Your task to perform on an android device: Do I have any events tomorrow? Image 0: 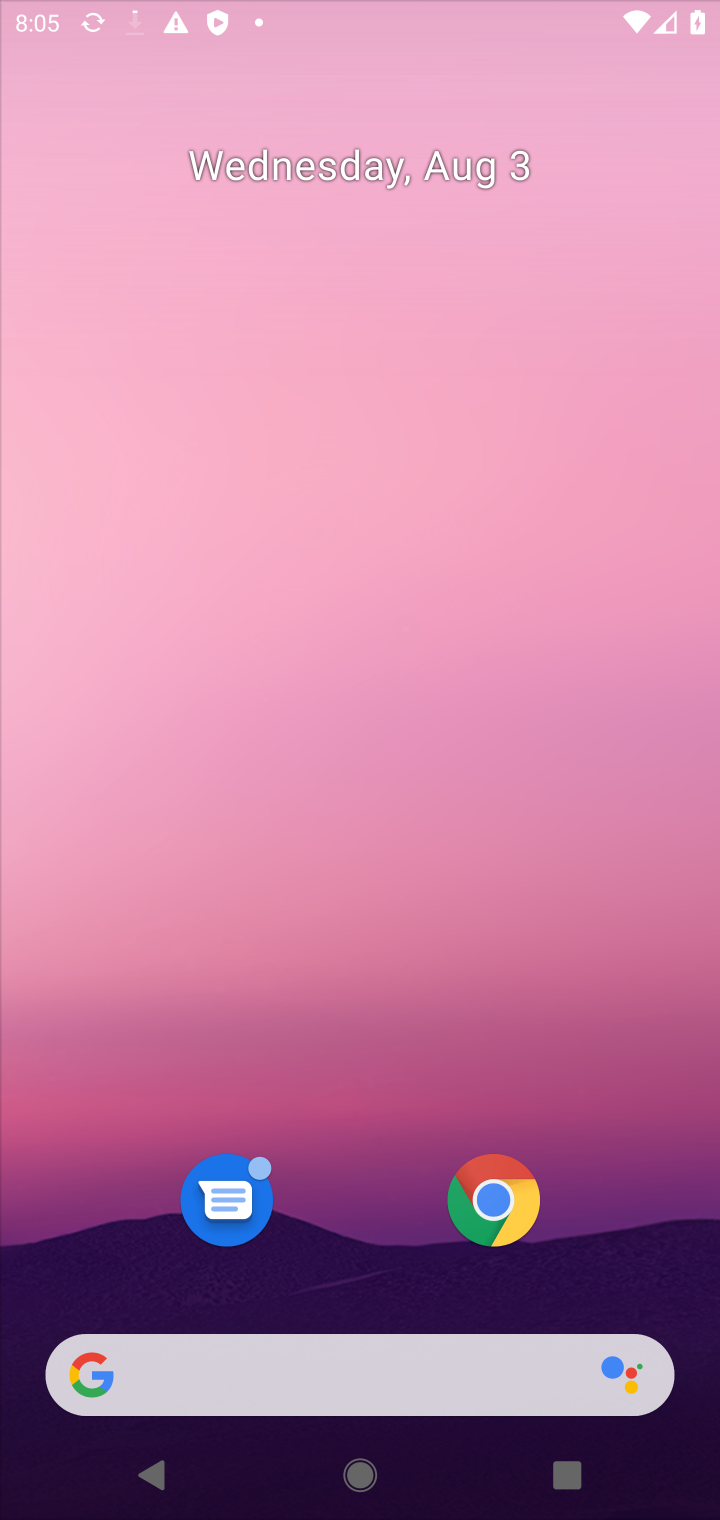
Step 0: click (536, 282)
Your task to perform on an android device: Do I have any events tomorrow? Image 1: 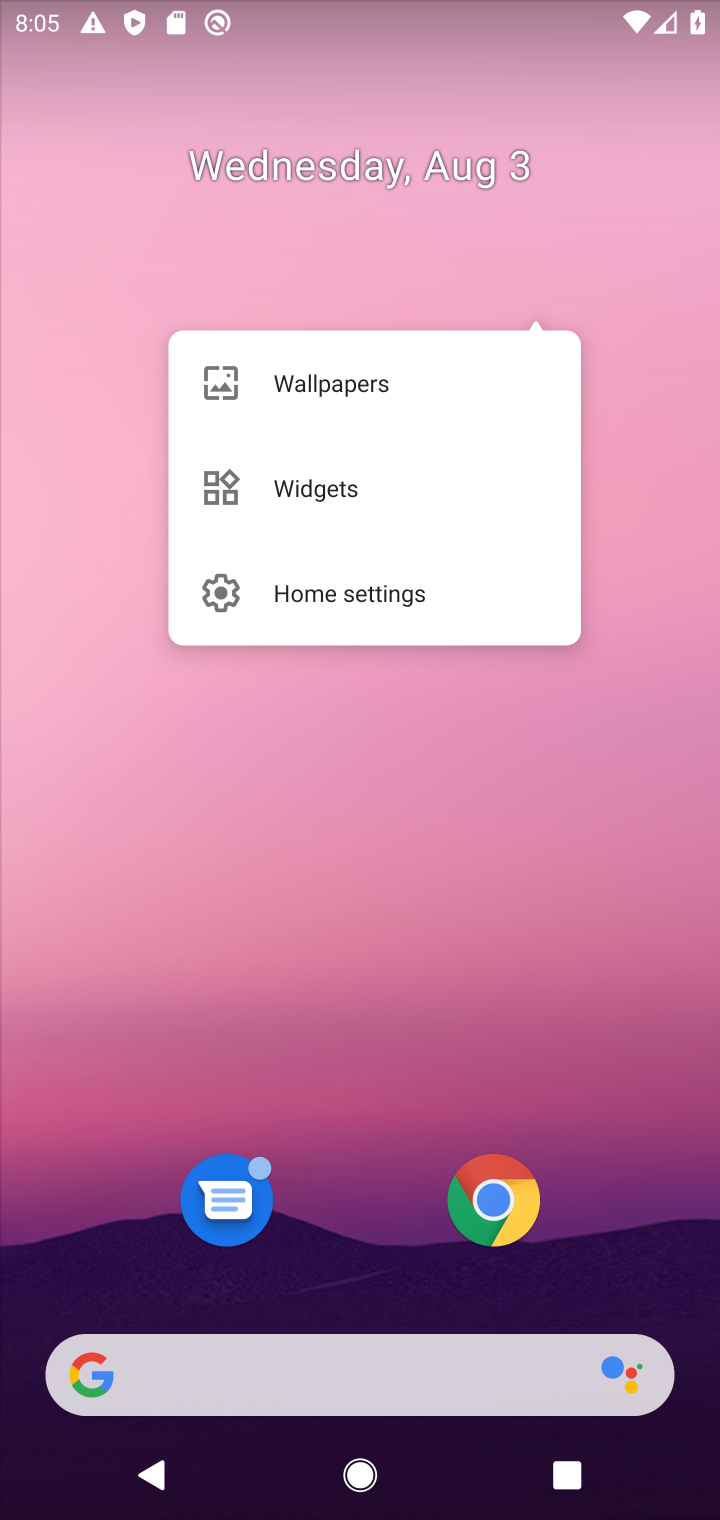
Step 1: drag from (637, 1225) to (594, 267)
Your task to perform on an android device: Do I have any events tomorrow? Image 2: 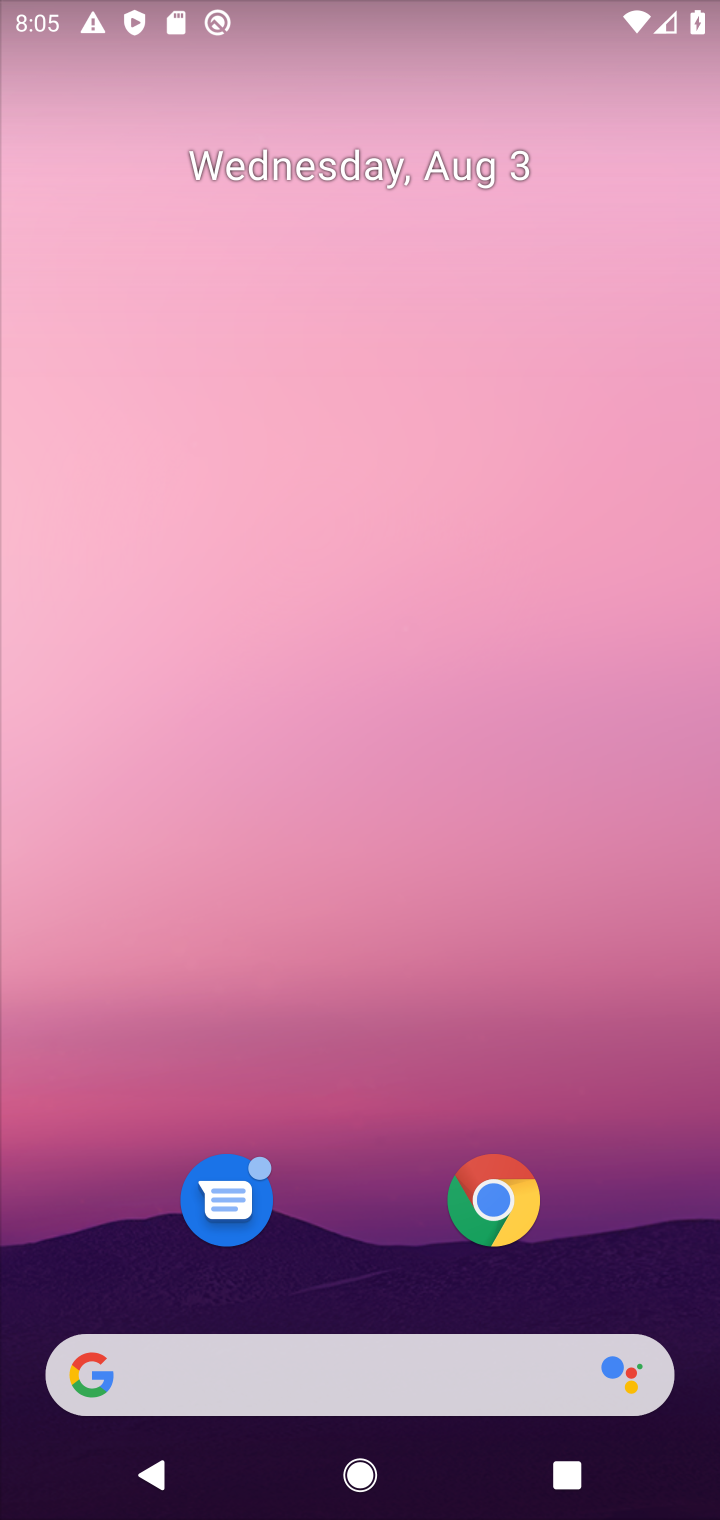
Step 2: drag from (627, 1154) to (518, 213)
Your task to perform on an android device: Do I have any events tomorrow? Image 3: 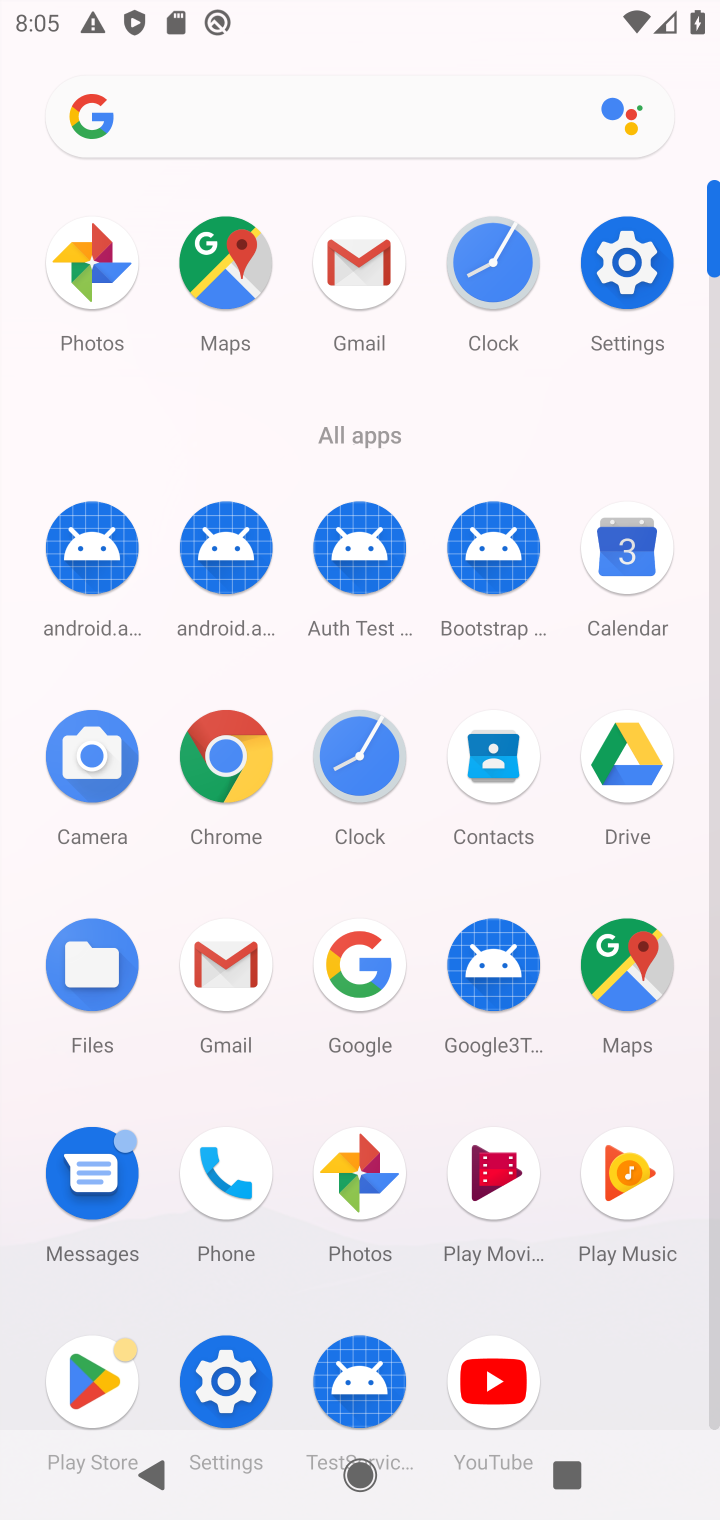
Step 3: click (625, 553)
Your task to perform on an android device: Do I have any events tomorrow? Image 4: 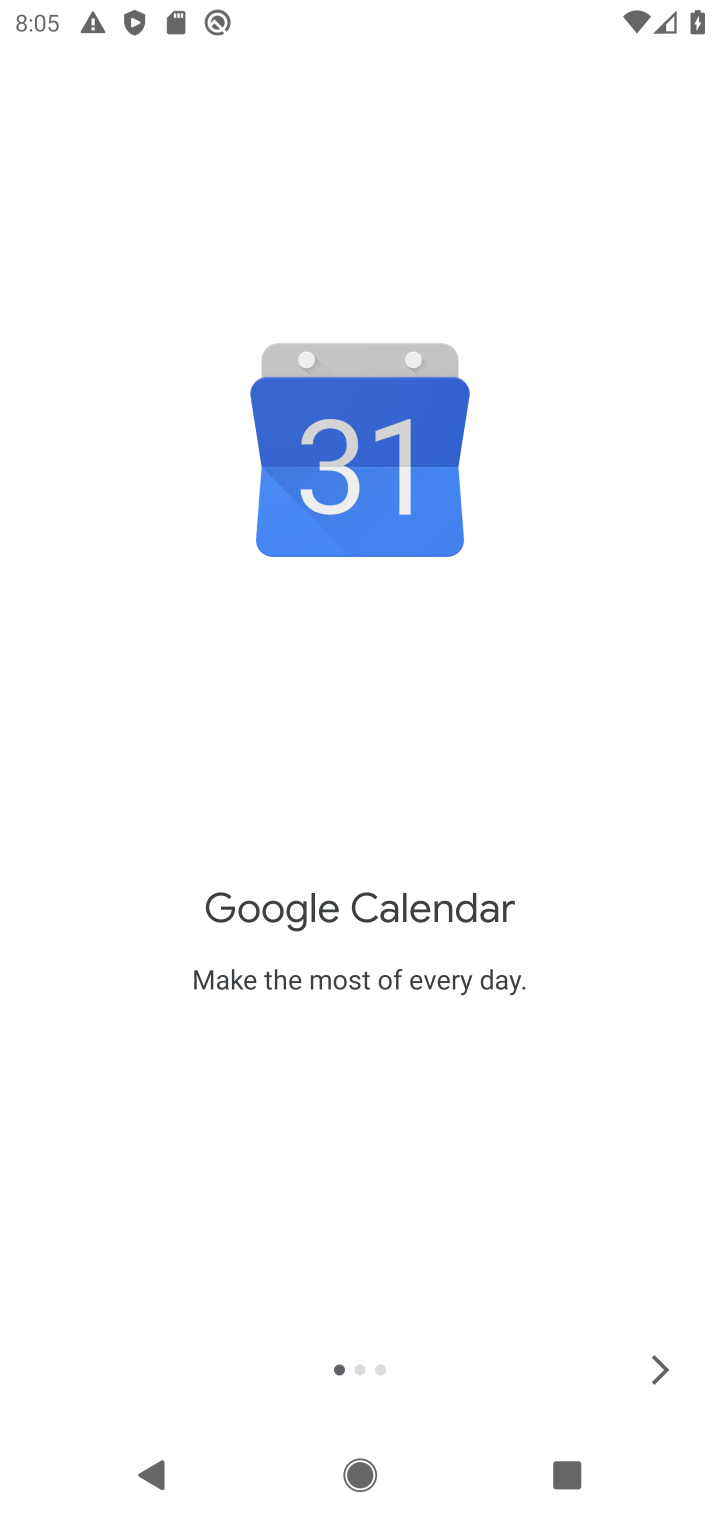
Step 4: click (657, 1363)
Your task to perform on an android device: Do I have any events tomorrow? Image 5: 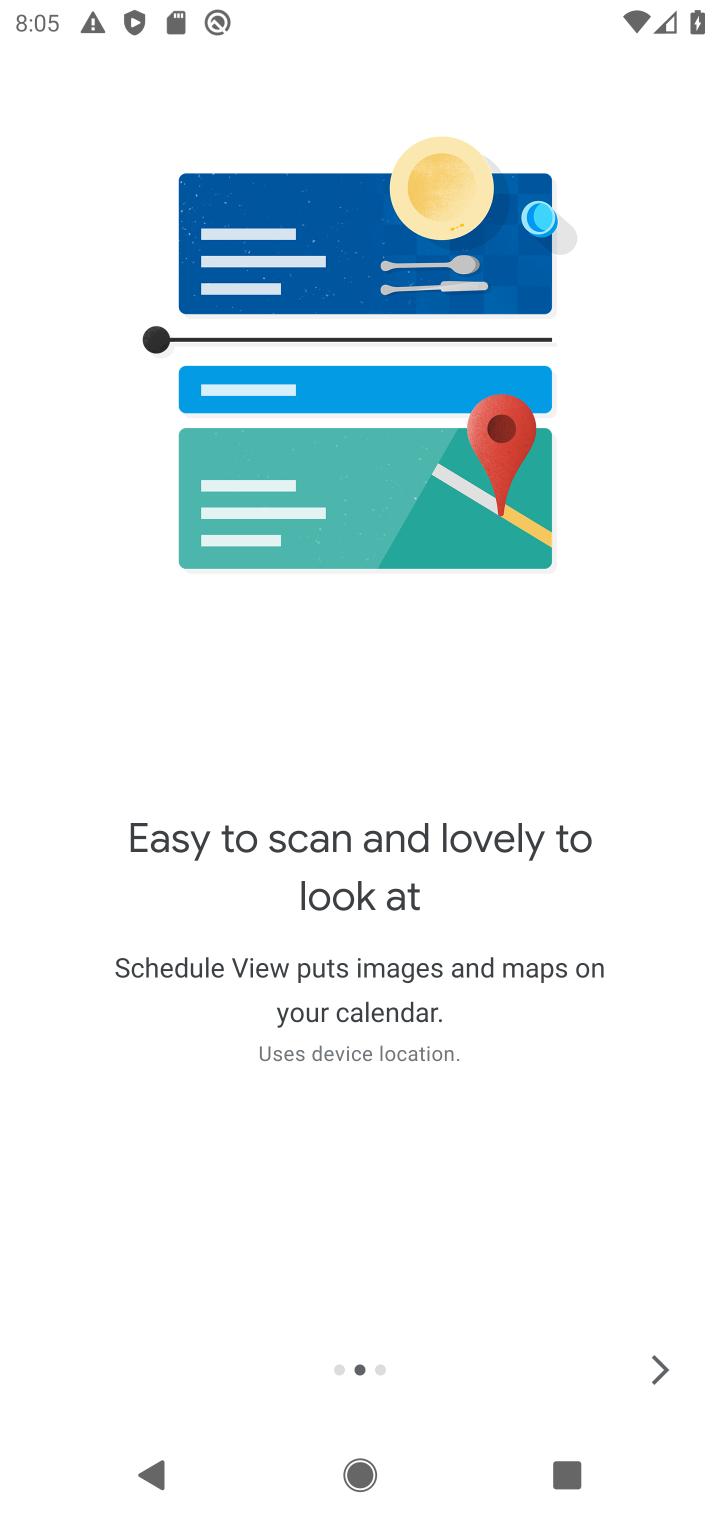
Step 5: click (657, 1363)
Your task to perform on an android device: Do I have any events tomorrow? Image 6: 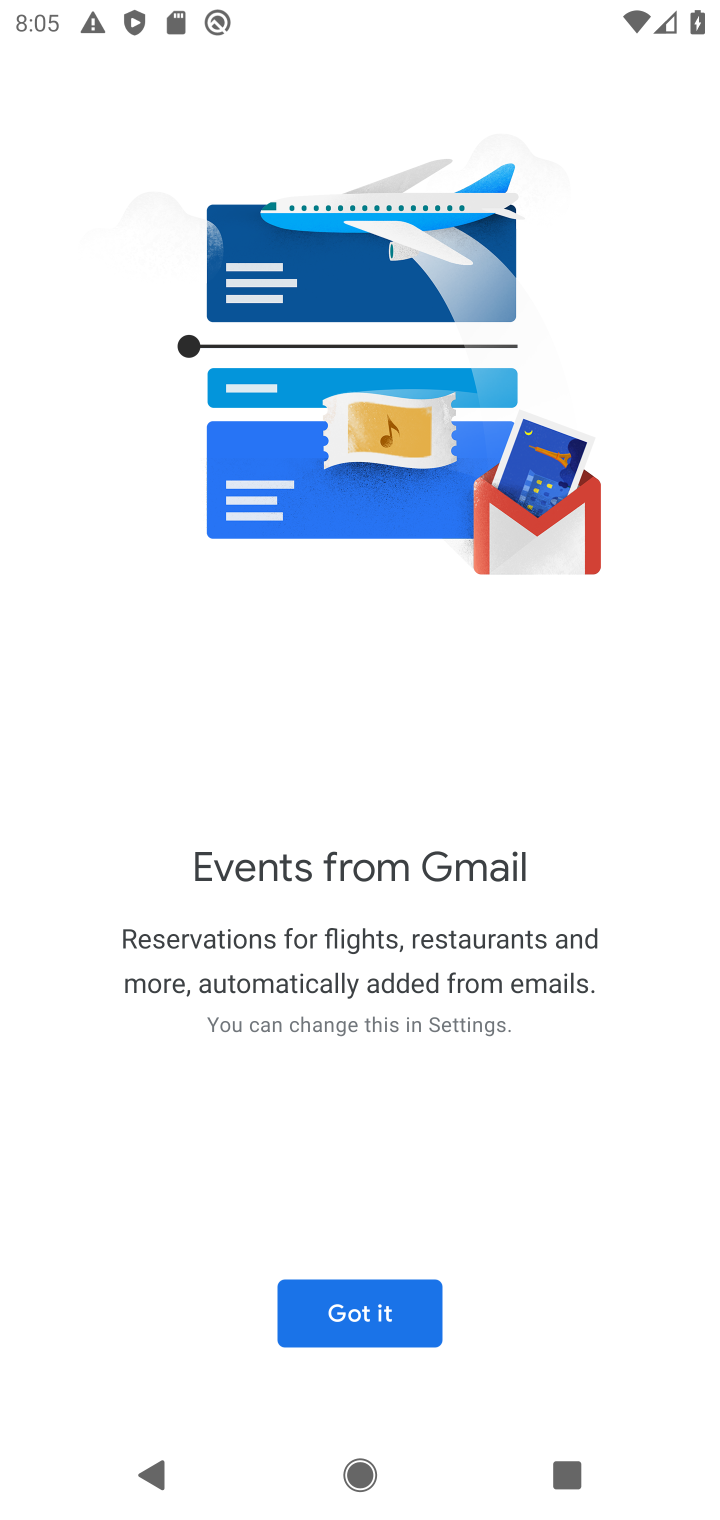
Step 6: click (360, 1299)
Your task to perform on an android device: Do I have any events tomorrow? Image 7: 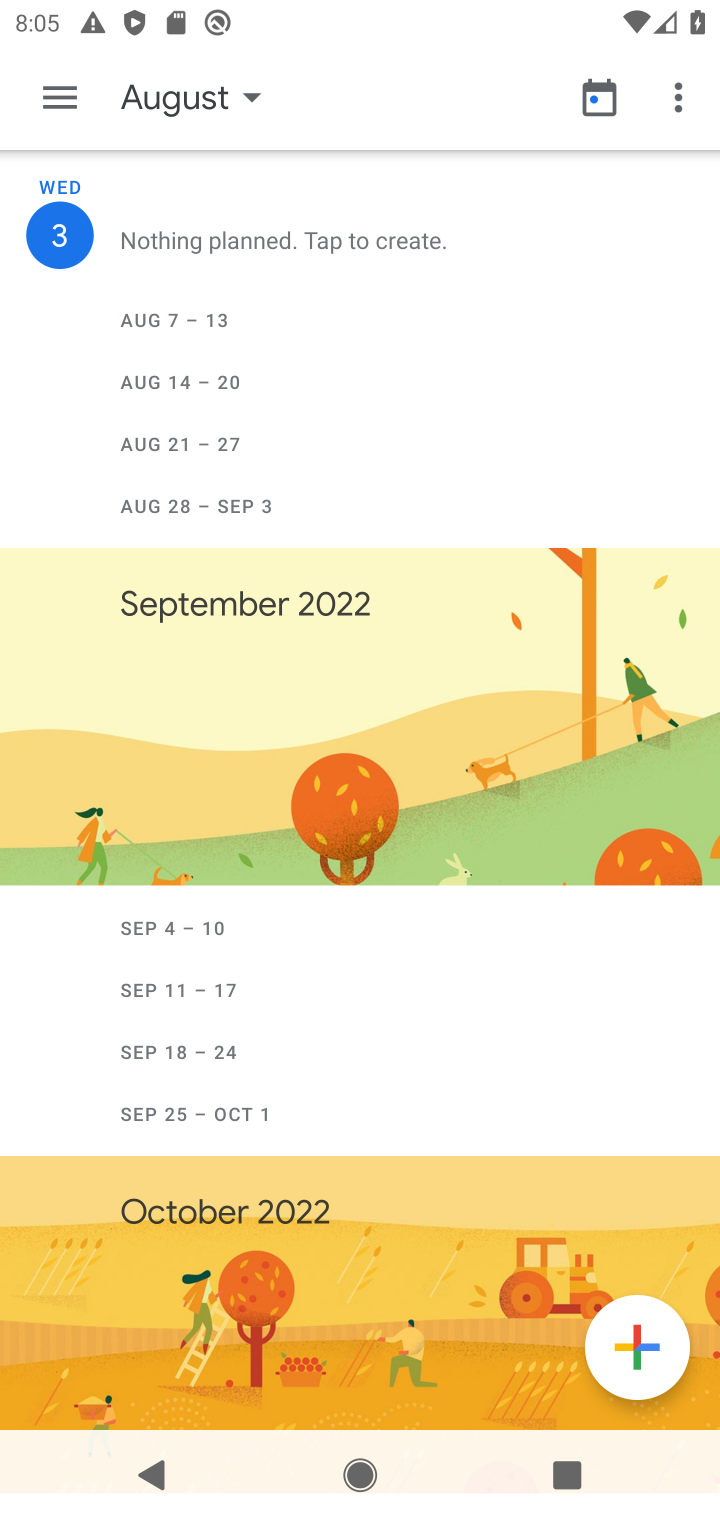
Step 7: click (46, 97)
Your task to perform on an android device: Do I have any events tomorrow? Image 8: 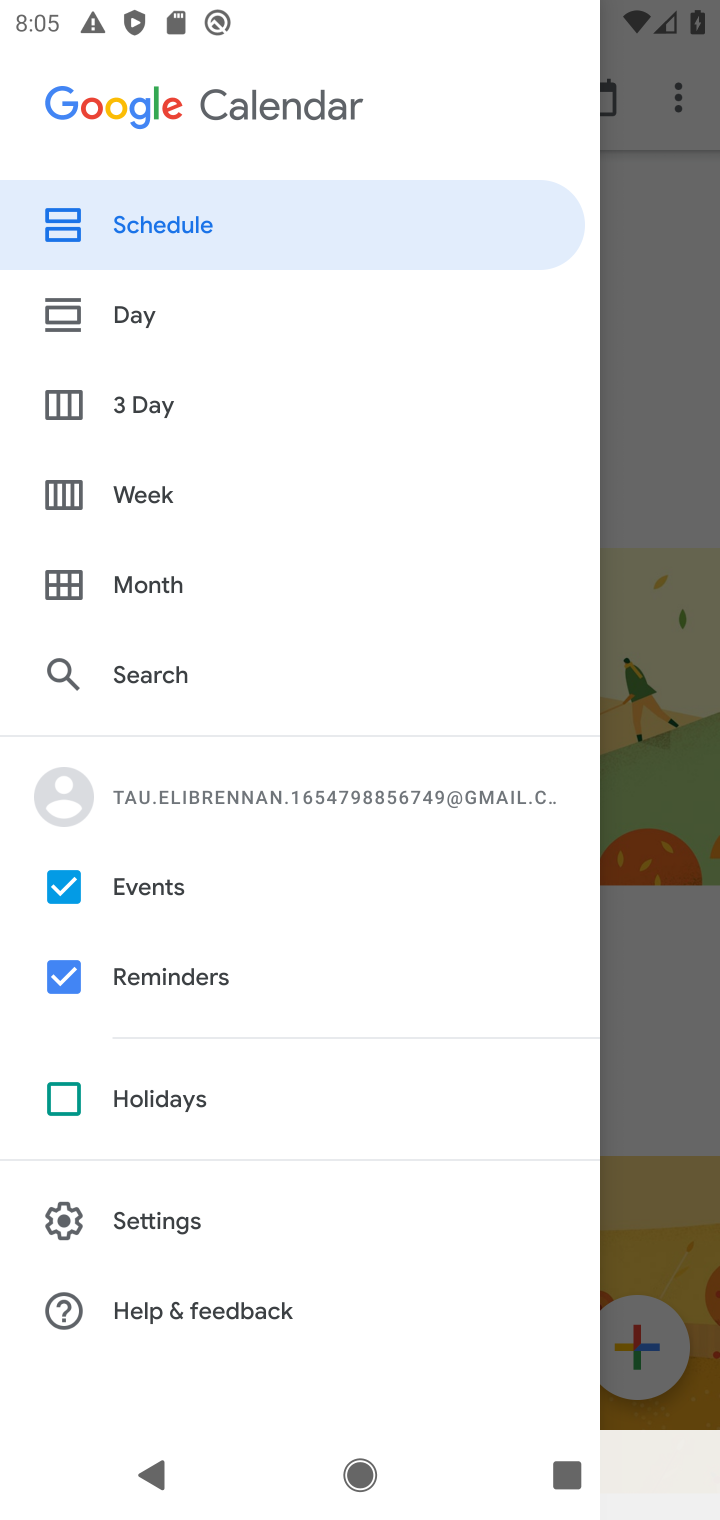
Step 8: click (128, 318)
Your task to perform on an android device: Do I have any events tomorrow? Image 9: 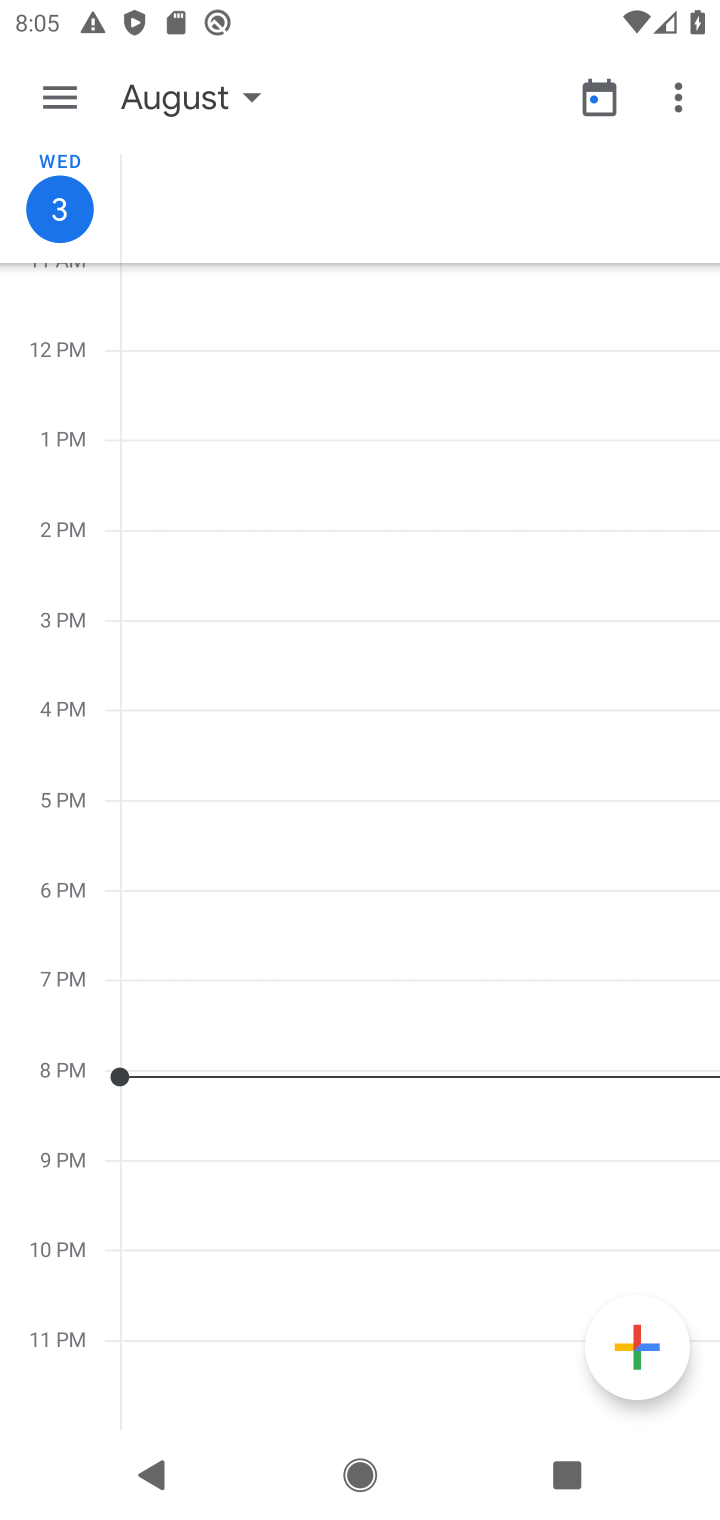
Step 9: click (254, 91)
Your task to perform on an android device: Do I have any events tomorrow? Image 10: 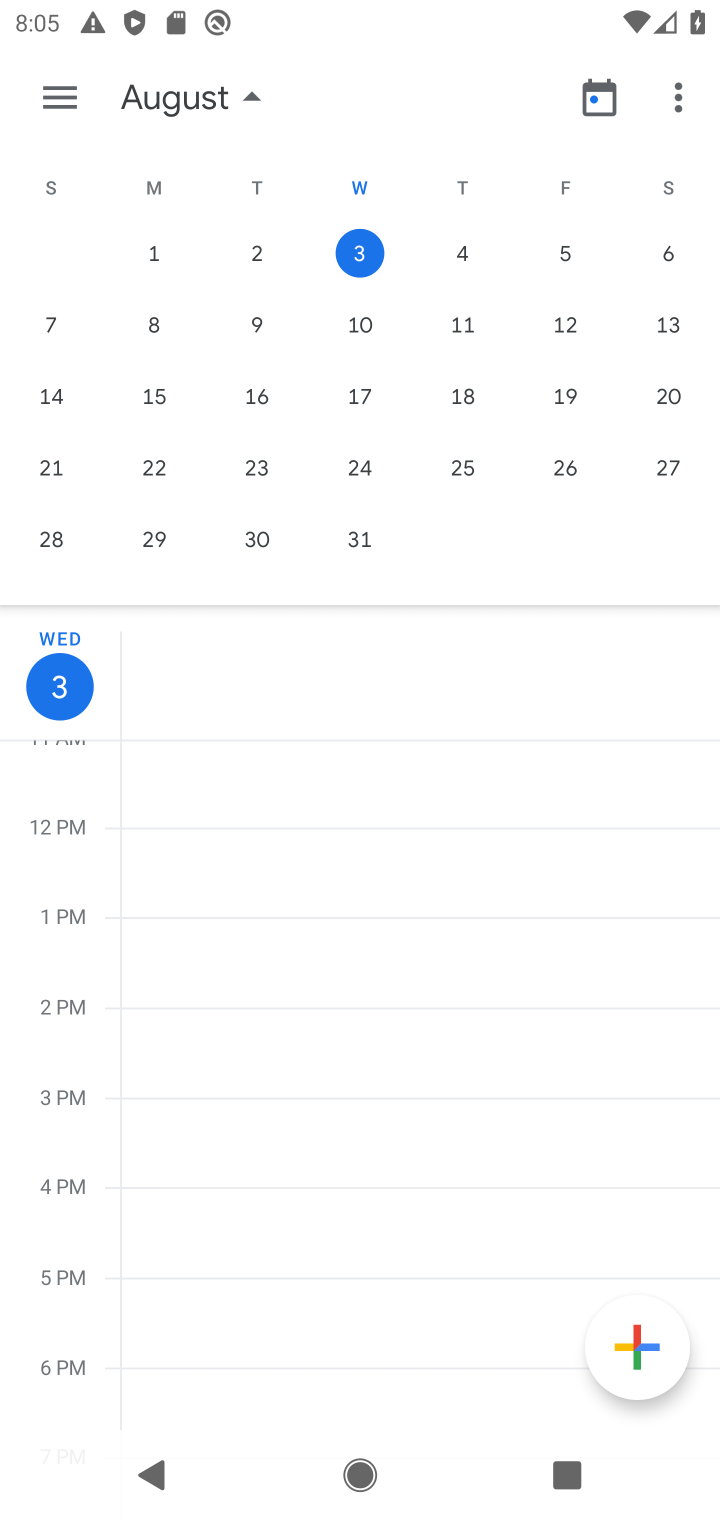
Step 10: click (465, 256)
Your task to perform on an android device: Do I have any events tomorrow? Image 11: 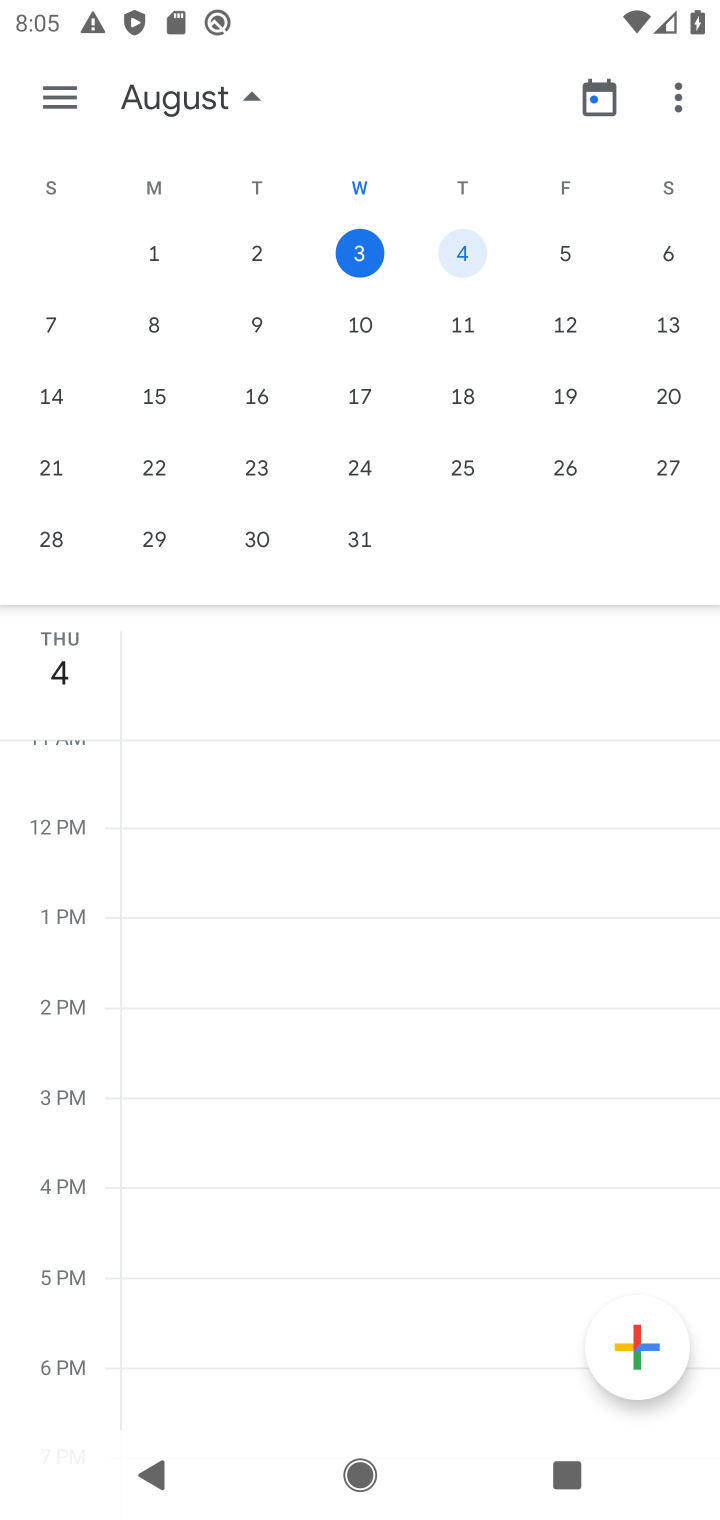
Step 11: task complete